Your task to perform on an android device: turn pop-ups on in chrome Image 0: 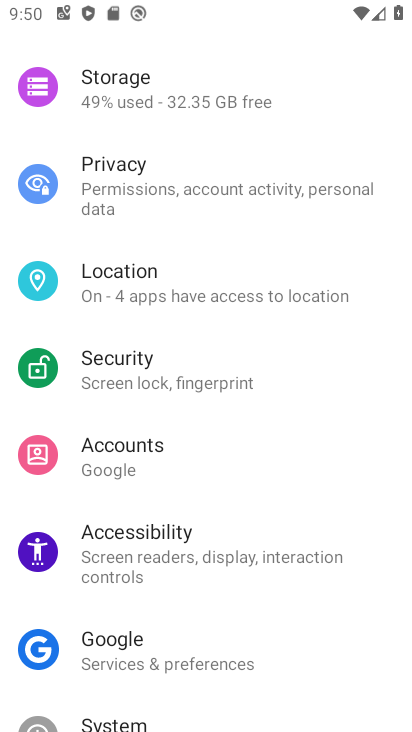
Step 0: press home button
Your task to perform on an android device: turn pop-ups on in chrome Image 1: 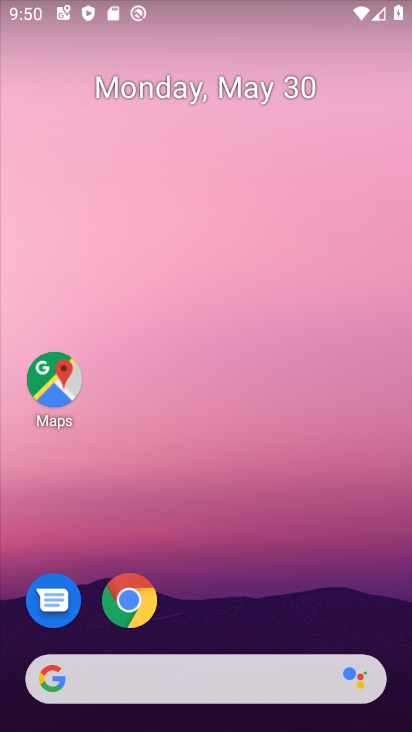
Step 1: click (135, 602)
Your task to perform on an android device: turn pop-ups on in chrome Image 2: 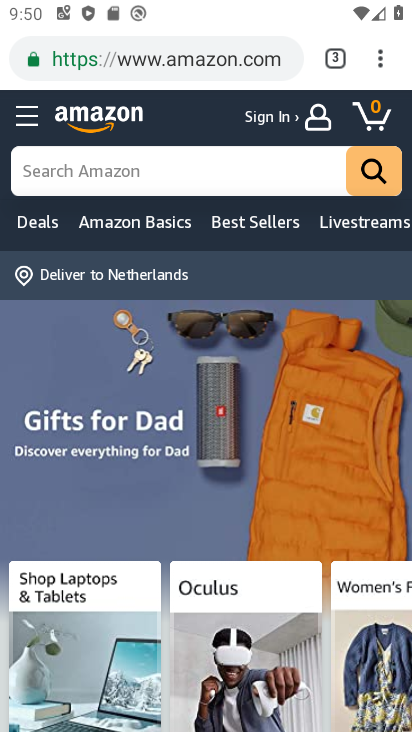
Step 2: drag from (377, 60) to (186, 613)
Your task to perform on an android device: turn pop-ups on in chrome Image 3: 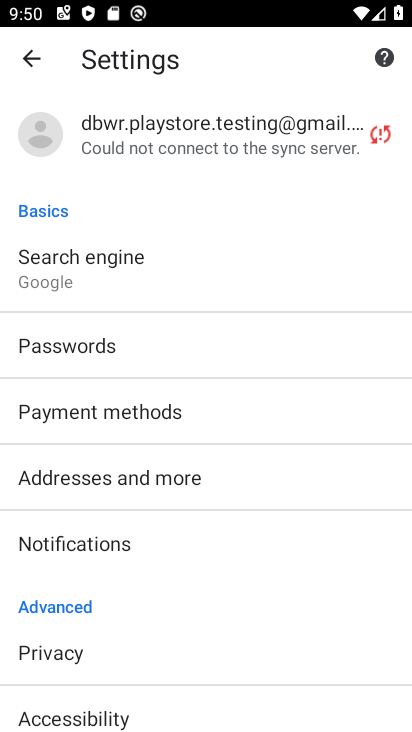
Step 3: drag from (326, 675) to (295, 312)
Your task to perform on an android device: turn pop-ups on in chrome Image 4: 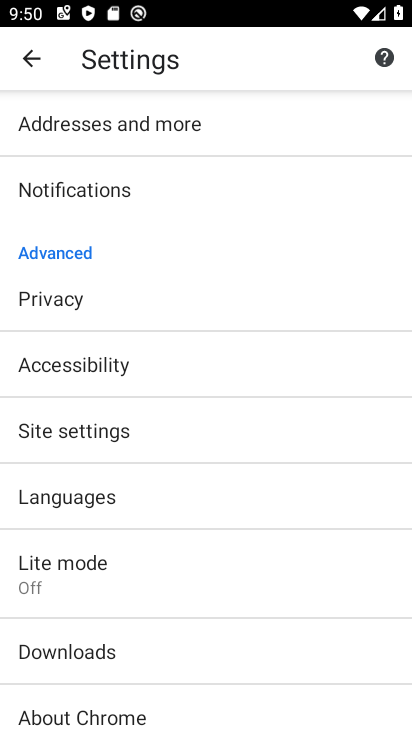
Step 4: click (116, 419)
Your task to perform on an android device: turn pop-ups on in chrome Image 5: 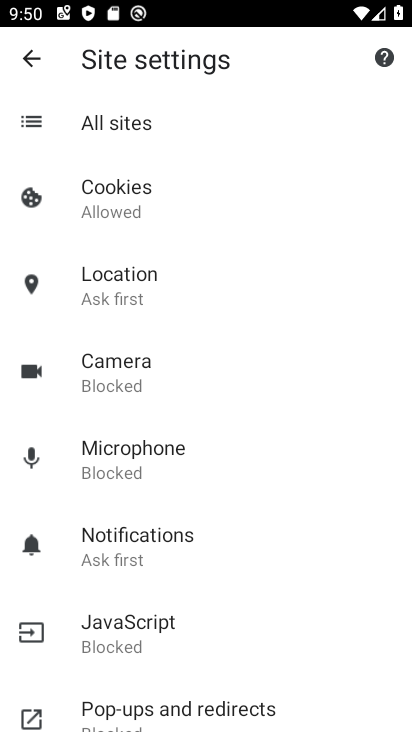
Step 5: click (242, 716)
Your task to perform on an android device: turn pop-ups on in chrome Image 6: 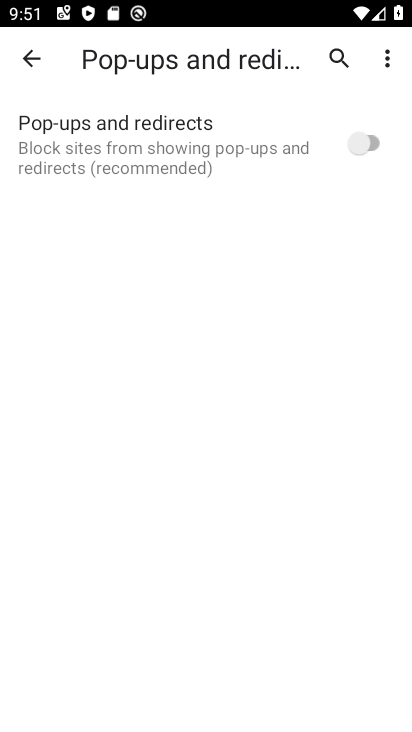
Step 6: click (371, 134)
Your task to perform on an android device: turn pop-ups on in chrome Image 7: 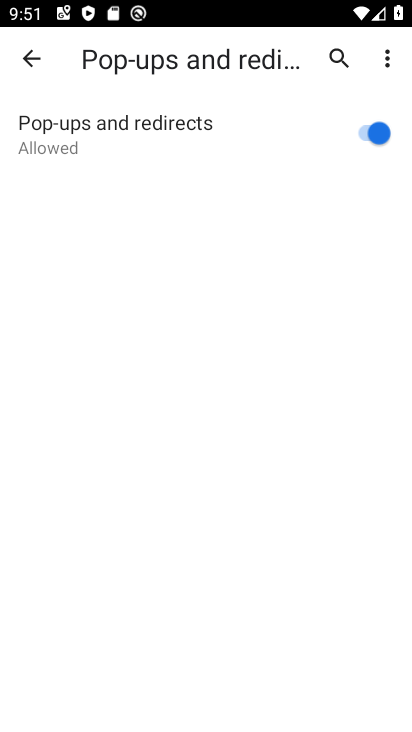
Step 7: task complete